Your task to perform on an android device: show emergency info Image 0: 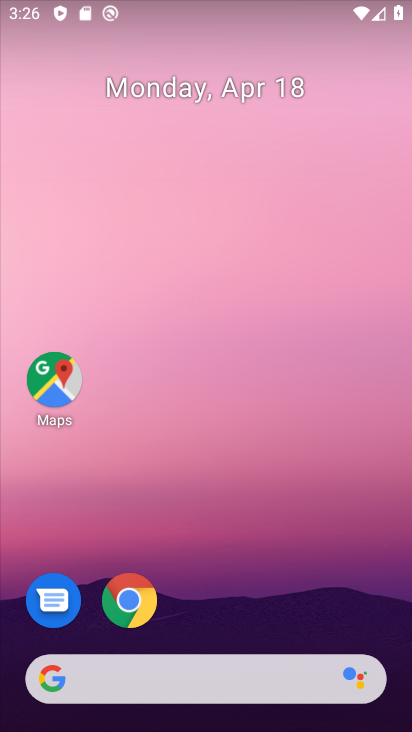
Step 0: drag from (302, 590) to (362, 78)
Your task to perform on an android device: show emergency info Image 1: 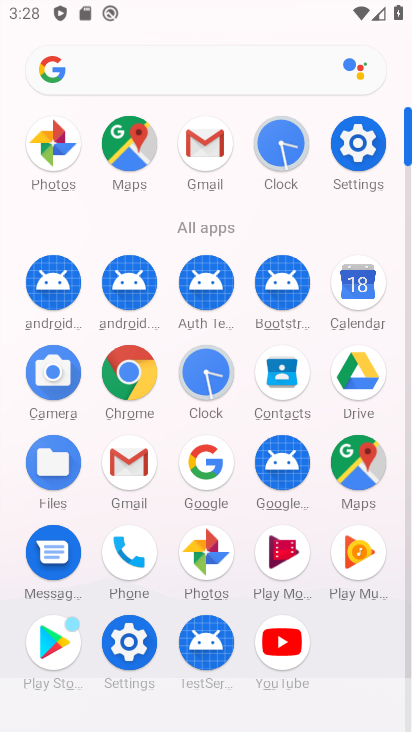
Step 1: drag from (328, 592) to (296, 222)
Your task to perform on an android device: show emergency info Image 2: 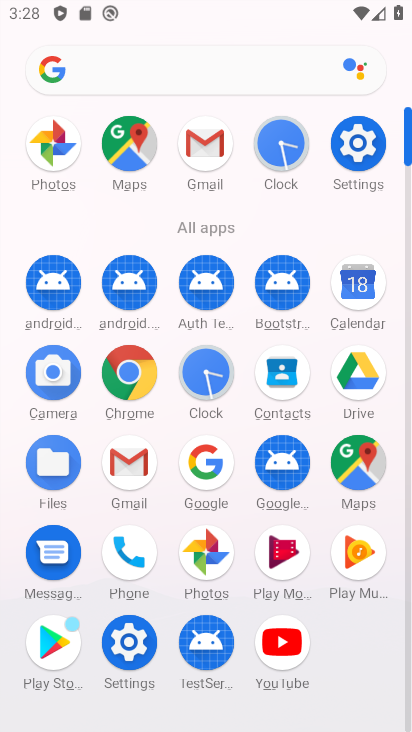
Step 2: click (130, 633)
Your task to perform on an android device: show emergency info Image 3: 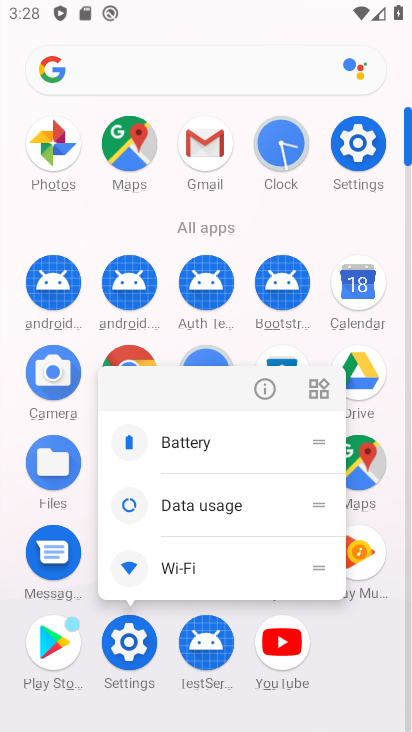
Step 3: click (135, 648)
Your task to perform on an android device: show emergency info Image 4: 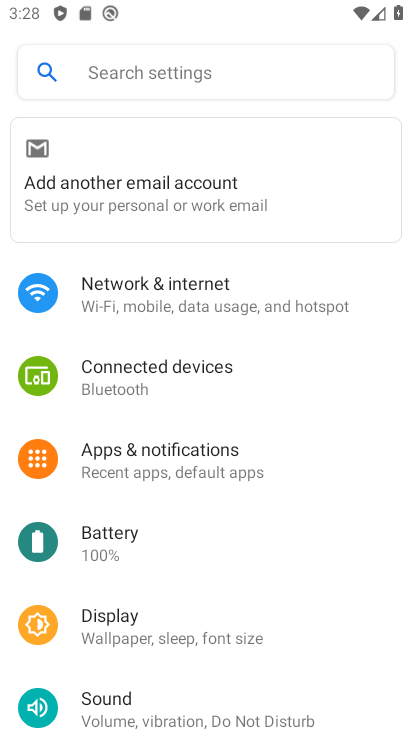
Step 4: drag from (330, 665) to (333, 282)
Your task to perform on an android device: show emergency info Image 5: 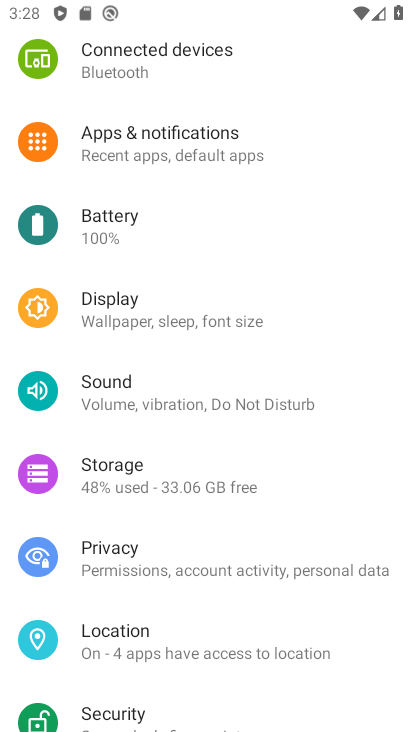
Step 5: drag from (330, 675) to (353, 133)
Your task to perform on an android device: show emergency info Image 6: 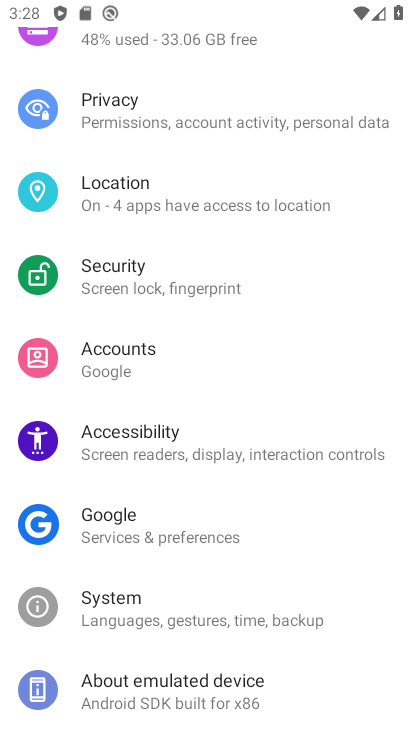
Step 6: click (223, 693)
Your task to perform on an android device: show emergency info Image 7: 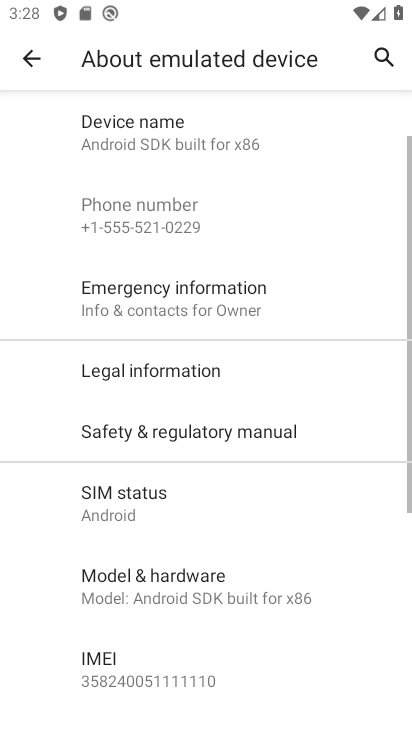
Step 7: click (189, 292)
Your task to perform on an android device: show emergency info Image 8: 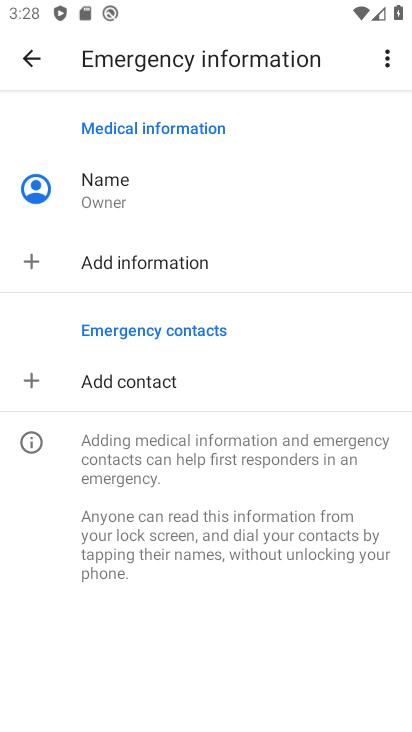
Step 8: task complete